Your task to perform on an android device: toggle pop-ups in chrome Image 0: 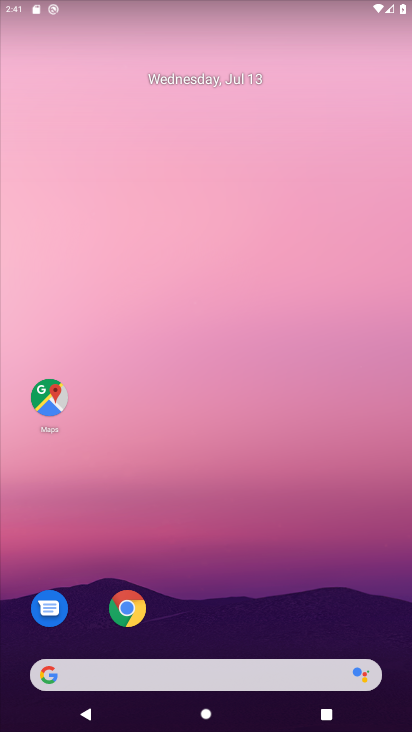
Step 0: click (129, 622)
Your task to perform on an android device: toggle pop-ups in chrome Image 1: 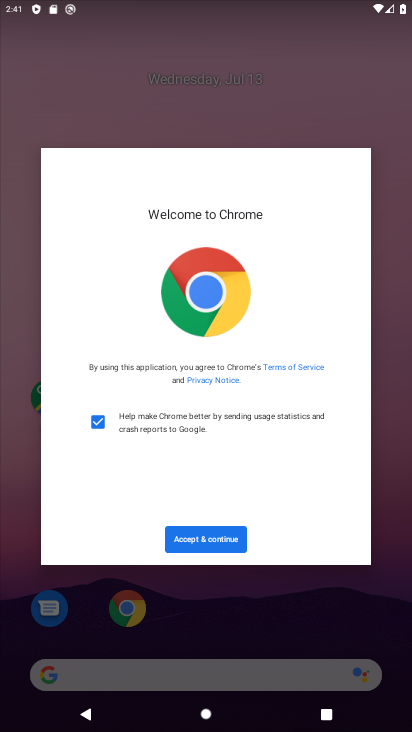
Step 1: click (220, 546)
Your task to perform on an android device: toggle pop-ups in chrome Image 2: 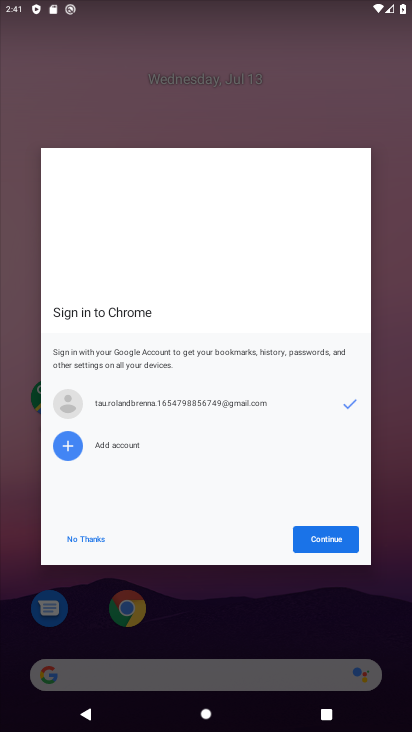
Step 2: click (306, 532)
Your task to perform on an android device: toggle pop-ups in chrome Image 3: 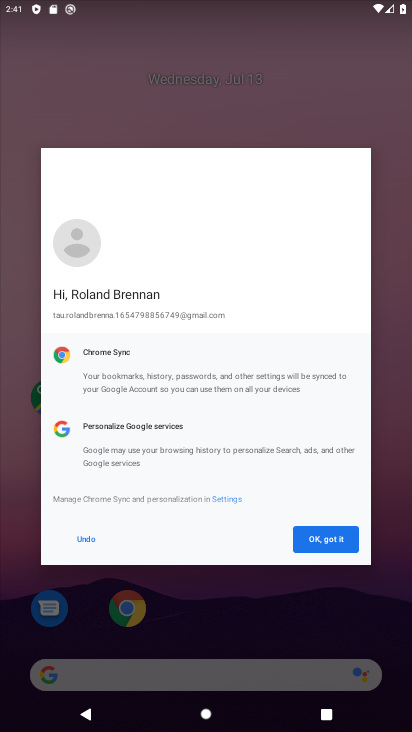
Step 3: click (325, 540)
Your task to perform on an android device: toggle pop-ups in chrome Image 4: 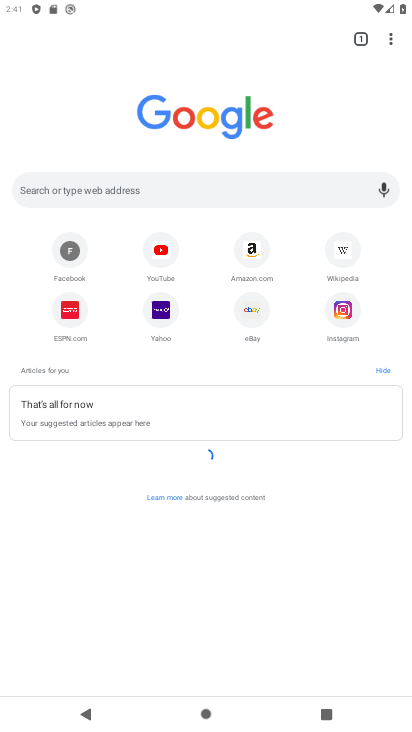
Step 4: drag from (402, 42) to (275, 322)
Your task to perform on an android device: toggle pop-ups in chrome Image 5: 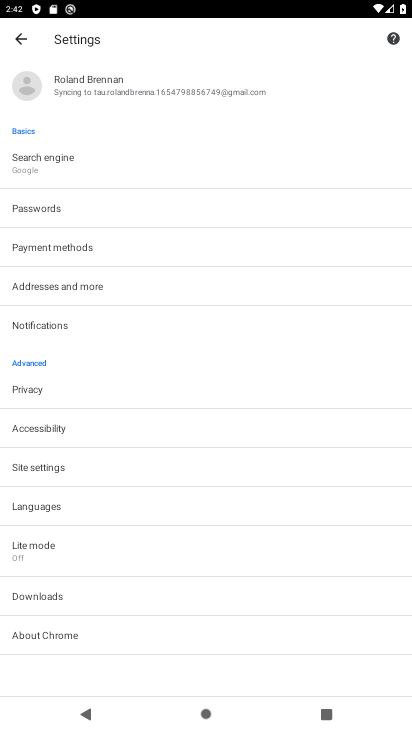
Step 5: click (83, 459)
Your task to perform on an android device: toggle pop-ups in chrome Image 6: 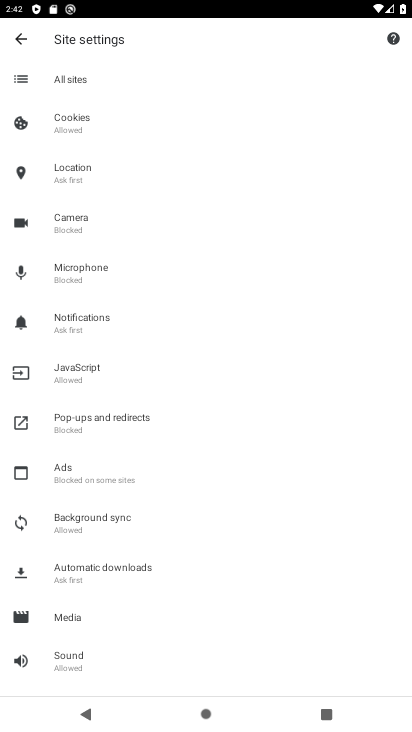
Step 6: click (142, 420)
Your task to perform on an android device: toggle pop-ups in chrome Image 7: 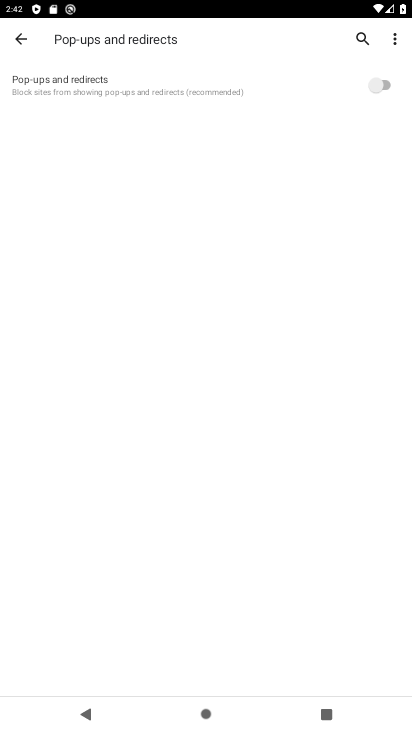
Step 7: click (392, 83)
Your task to perform on an android device: toggle pop-ups in chrome Image 8: 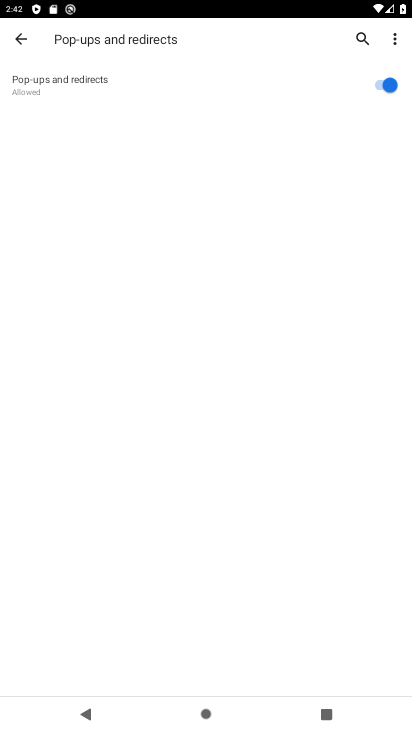
Step 8: task complete